Your task to perform on an android device: manage bookmarks in the chrome app Image 0: 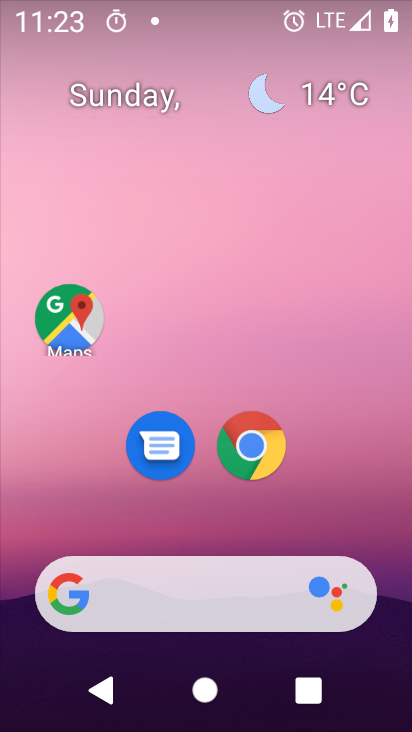
Step 0: drag from (329, 577) to (345, 308)
Your task to perform on an android device: manage bookmarks in the chrome app Image 1: 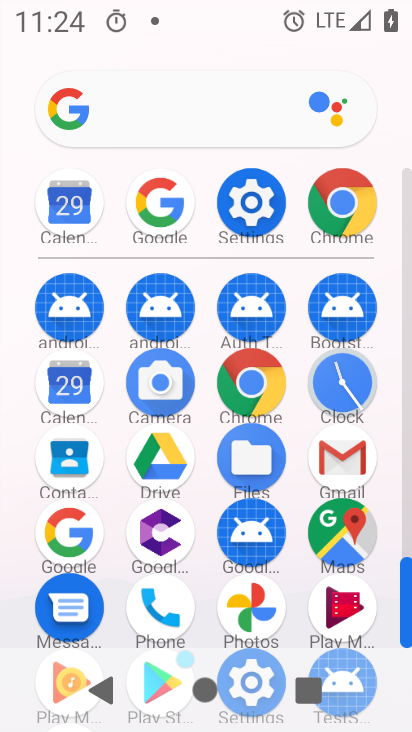
Step 1: click (250, 374)
Your task to perform on an android device: manage bookmarks in the chrome app Image 2: 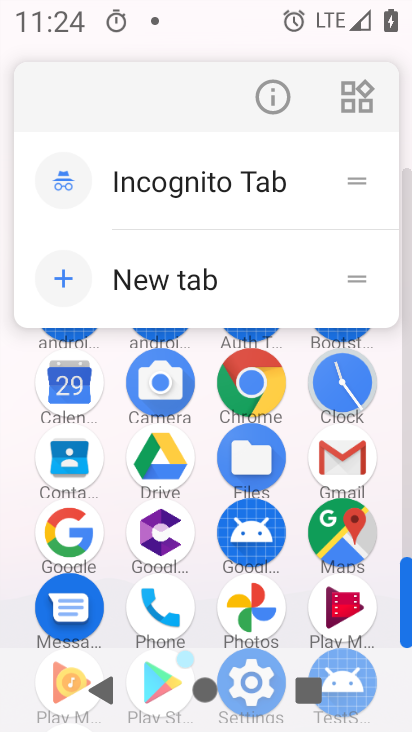
Step 2: click (267, 101)
Your task to perform on an android device: manage bookmarks in the chrome app Image 3: 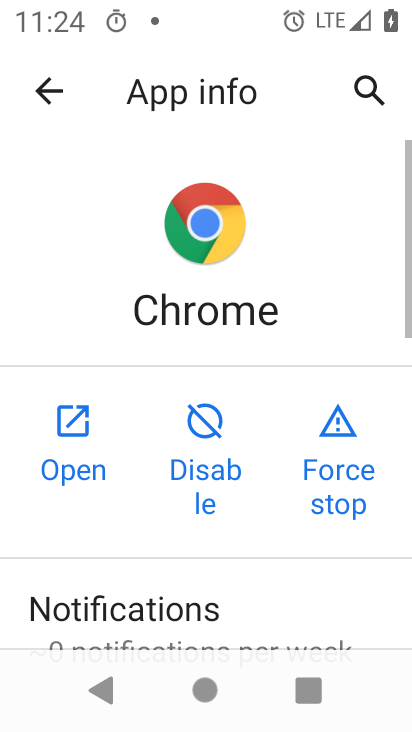
Step 3: click (50, 454)
Your task to perform on an android device: manage bookmarks in the chrome app Image 4: 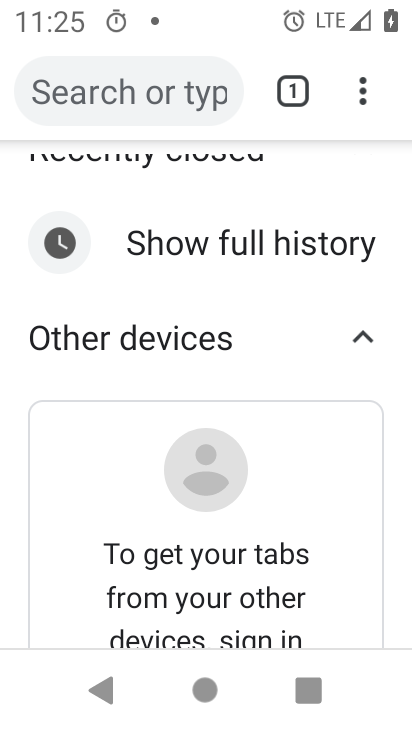
Step 4: click (384, 98)
Your task to perform on an android device: manage bookmarks in the chrome app Image 5: 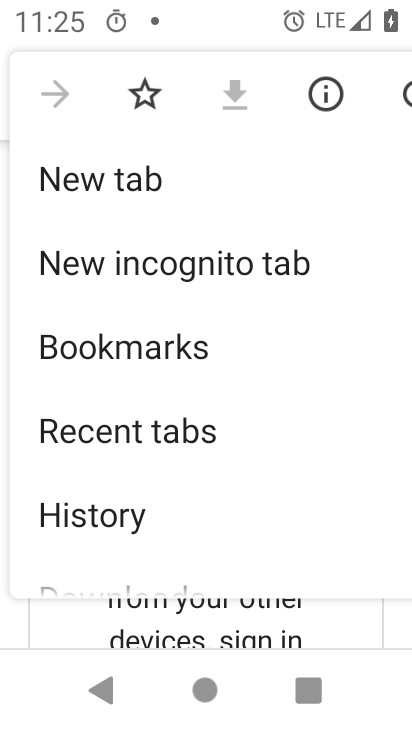
Step 5: click (216, 350)
Your task to perform on an android device: manage bookmarks in the chrome app Image 6: 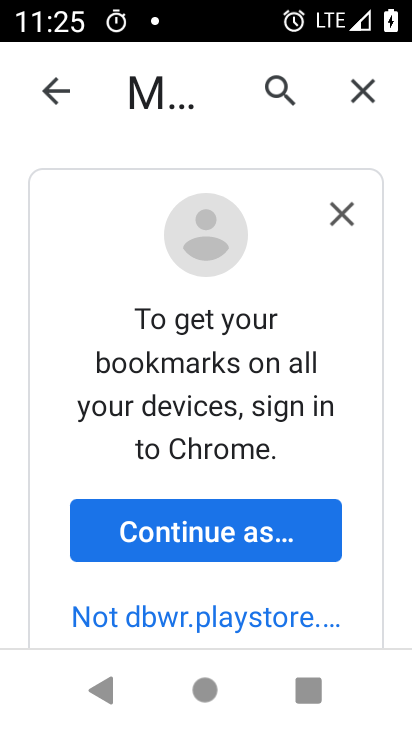
Step 6: task complete